Your task to perform on an android device: turn off notifications settings in the gmail app Image 0: 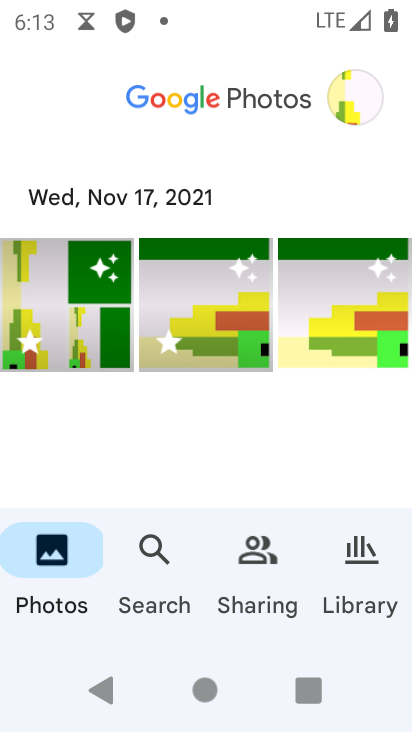
Step 0: press home button
Your task to perform on an android device: turn off notifications settings in the gmail app Image 1: 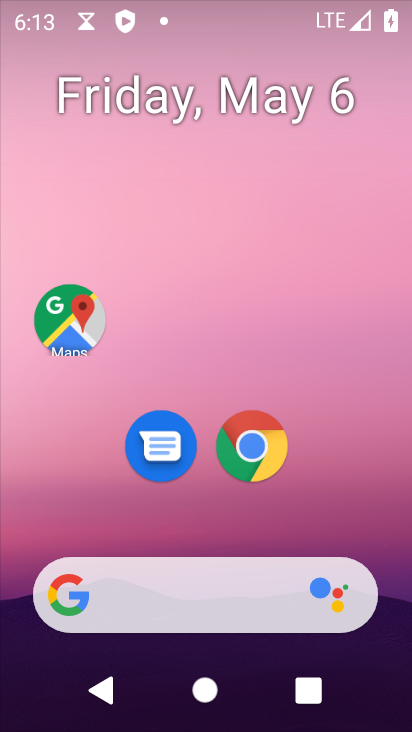
Step 1: drag from (349, 488) to (296, 180)
Your task to perform on an android device: turn off notifications settings in the gmail app Image 2: 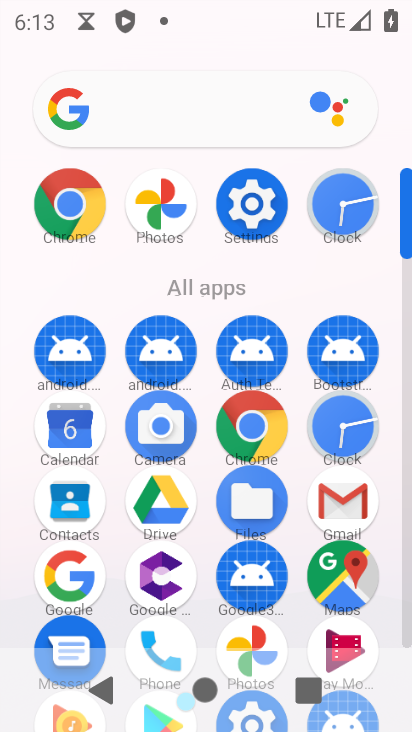
Step 2: click (359, 505)
Your task to perform on an android device: turn off notifications settings in the gmail app Image 3: 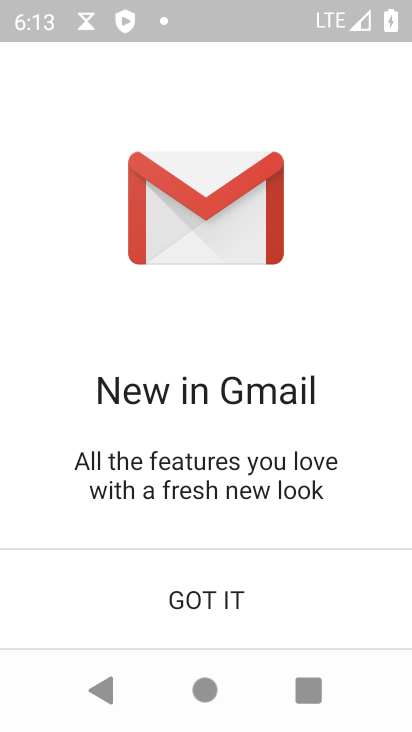
Step 3: click (199, 568)
Your task to perform on an android device: turn off notifications settings in the gmail app Image 4: 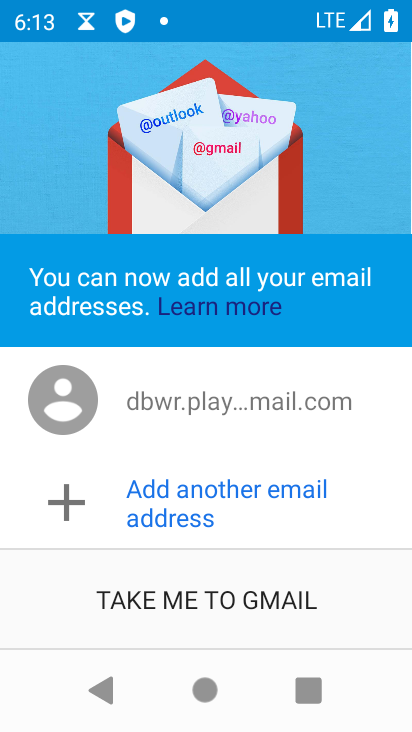
Step 4: click (192, 583)
Your task to perform on an android device: turn off notifications settings in the gmail app Image 5: 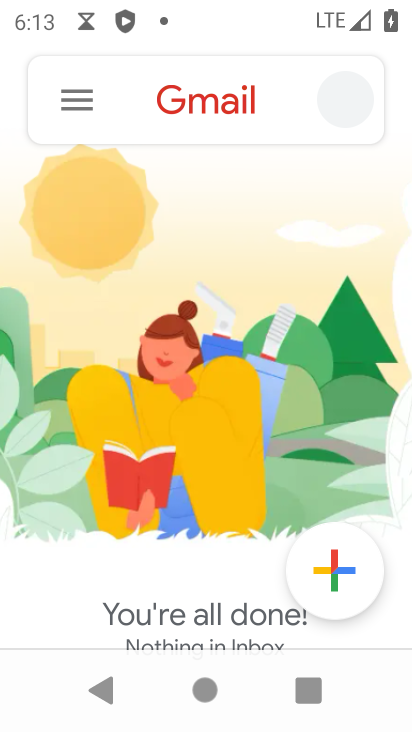
Step 5: click (75, 91)
Your task to perform on an android device: turn off notifications settings in the gmail app Image 6: 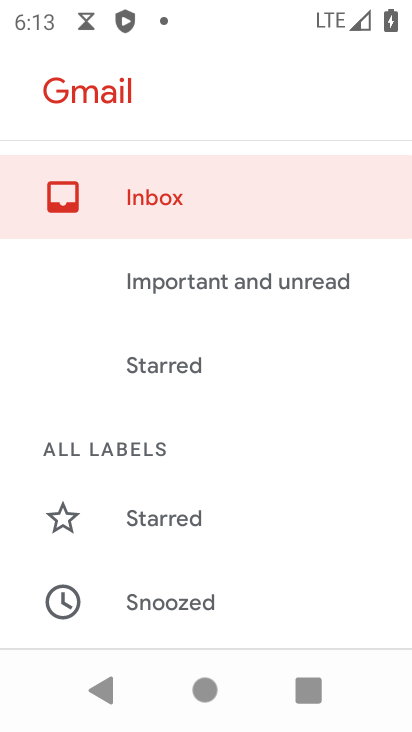
Step 6: drag from (179, 561) to (207, 180)
Your task to perform on an android device: turn off notifications settings in the gmail app Image 7: 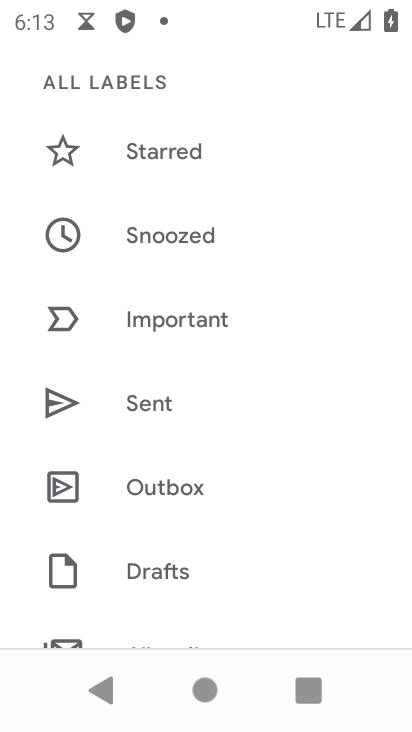
Step 7: drag from (176, 530) to (113, 92)
Your task to perform on an android device: turn off notifications settings in the gmail app Image 8: 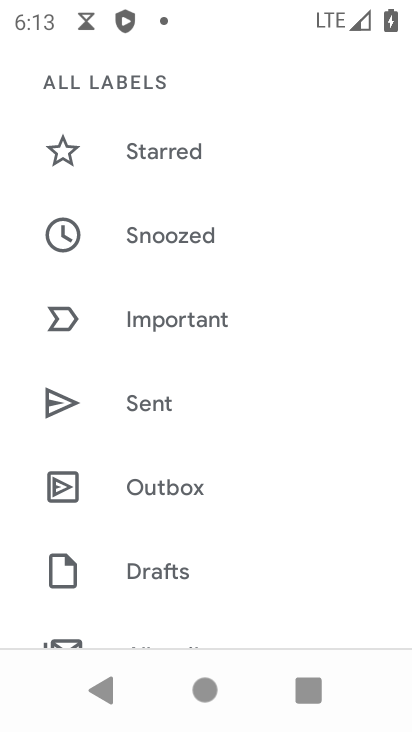
Step 8: drag from (170, 540) to (235, 133)
Your task to perform on an android device: turn off notifications settings in the gmail app Image 9: 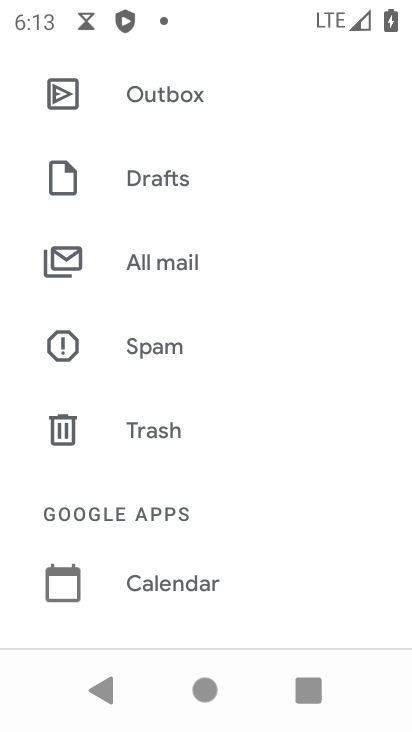
Step 9: drag from (182, 539) to (208, 85)
Your task to perform on an android device: turn off notifications settings in the gmail app Image 10: 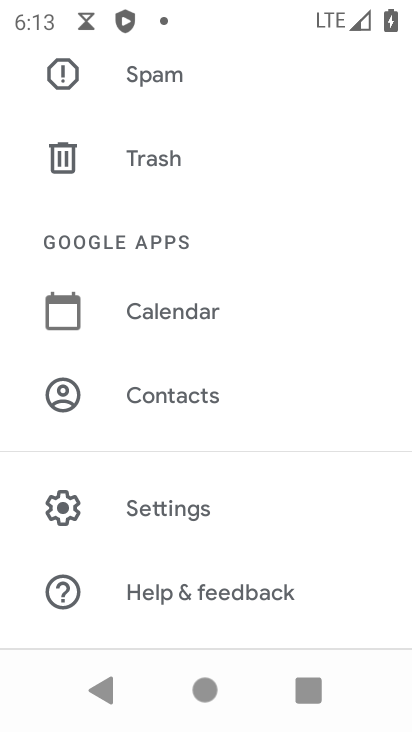
Step 10: click (169, 509)
Your task to perform on an android device: turn off notifications settings in the gmail app Image 11: 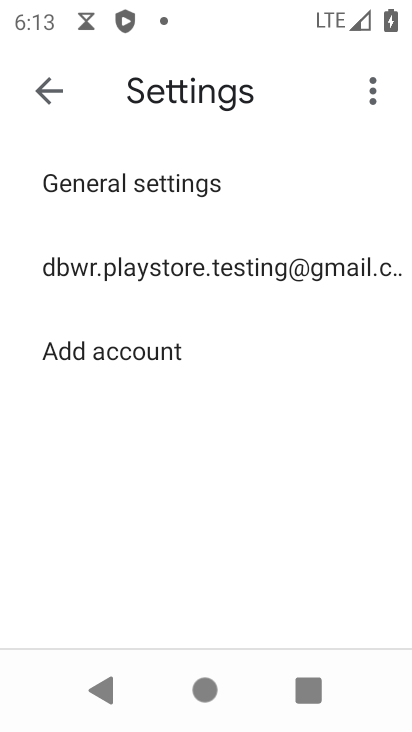
Step 11: click (171, 266)
Your task to perform on an android device: turn off notifications settings in the gmail app Image 12: 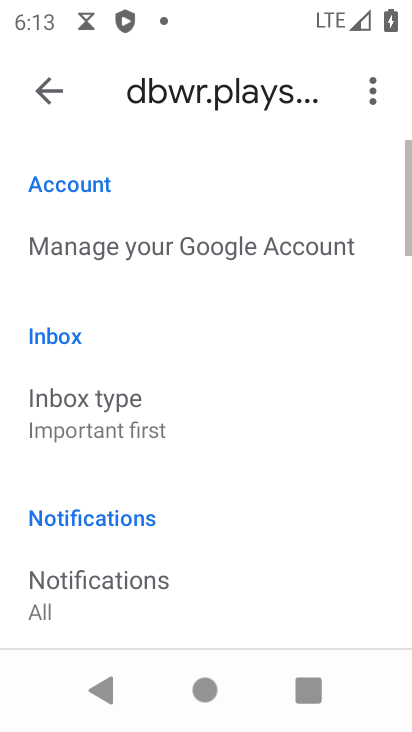
Step 12: drag from (176, 544) to (153, 135)
Your task to perform on an android device: turn off notifications settings in the gmail app Image 13: 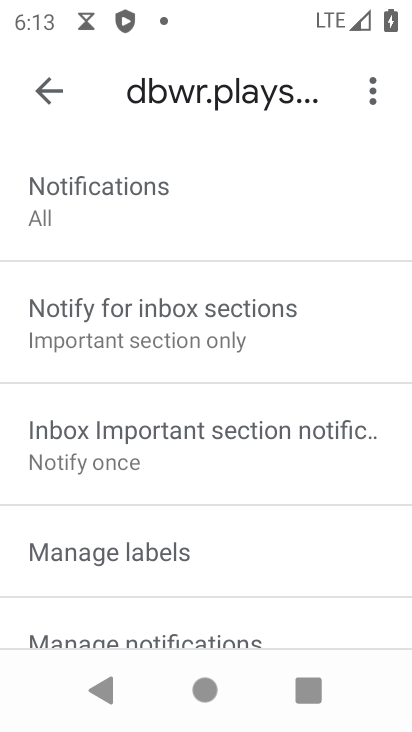
Step 13: click (78, 208)
Your task to perform on an android device: turn off notifications settings in the gmail app Image 14: 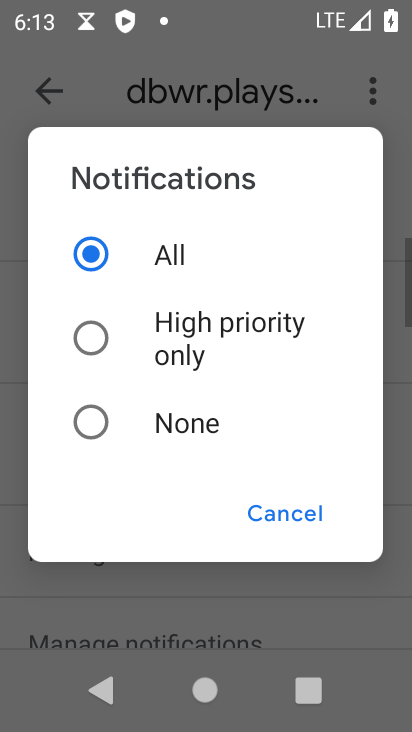
Step 14: click (95, 418)
Your task to perform on an android device: turn off notifications settings in the gmail app Image 15: 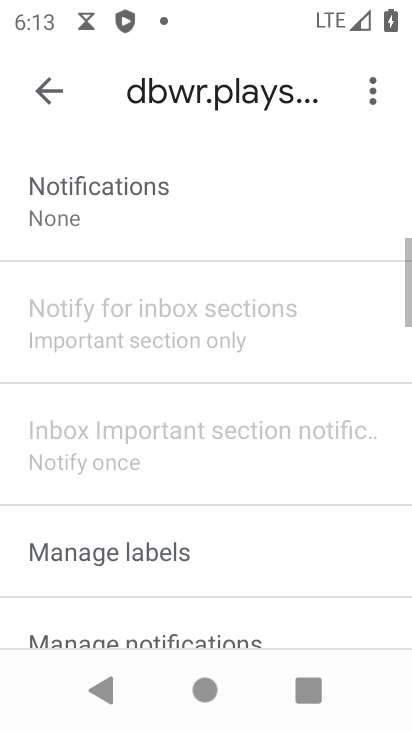
Step 15: task complete